Your task to perform on an android device: Turn on the flashlight Image 0: 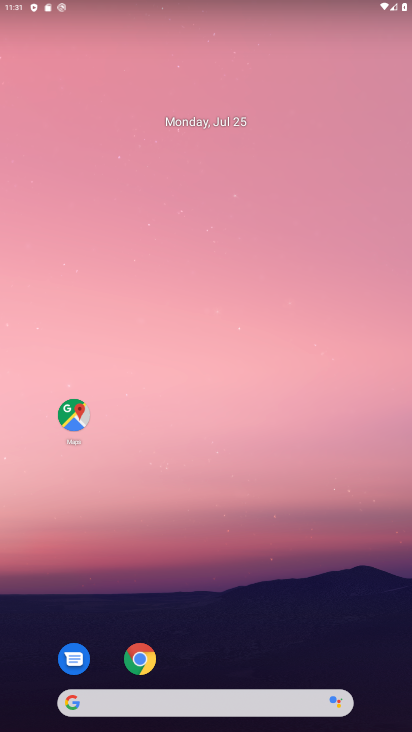
Step 0: drag from (139, 189) to (147, 65)
Your task to perform on an android device: Turn on the flashlight Image 1: 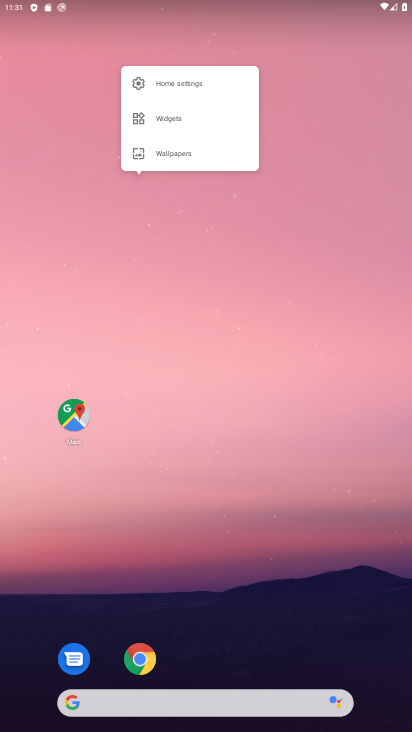
Step 1: click (212, 581)
Your task to perform on an android device: Turn on the flashlight Image 2: 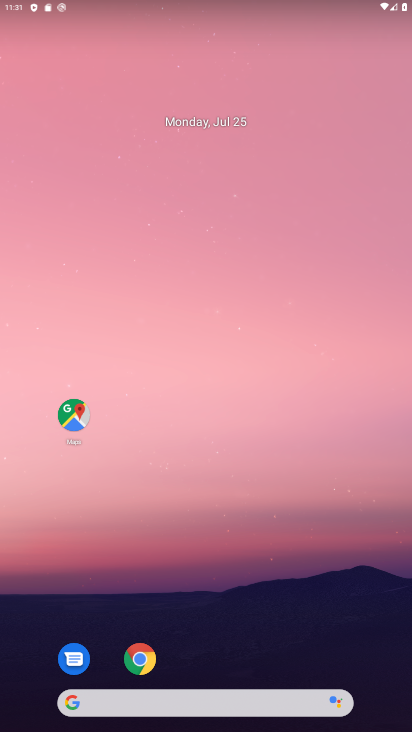
Step 2: task complete